Your task to perform on an android device: Open eBay Image 0: 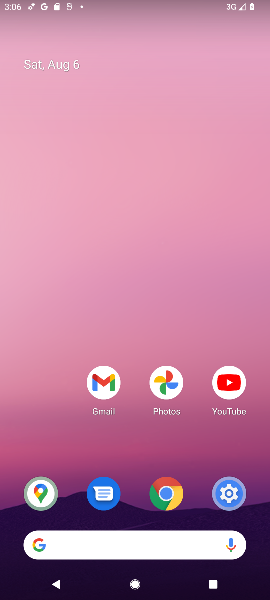
Step 0: drag from (112, 167) to (112, 107)
Your task to perform on an android device: Open eBay Image 1: 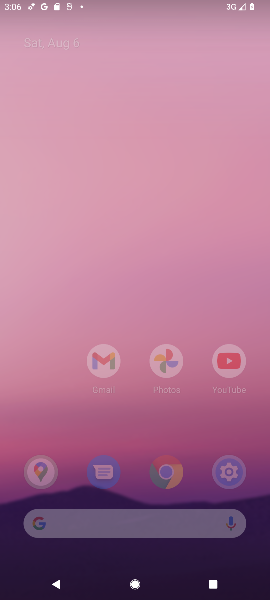
Step 1: click (106, 89)
Your task to perform on an android device: Open eBay Image 2: 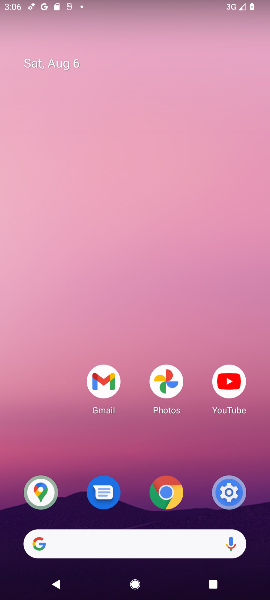
Step 2: drag from (137, 179) to (123, 56)
Your task to perform on an android device: Open eBay Image 3: 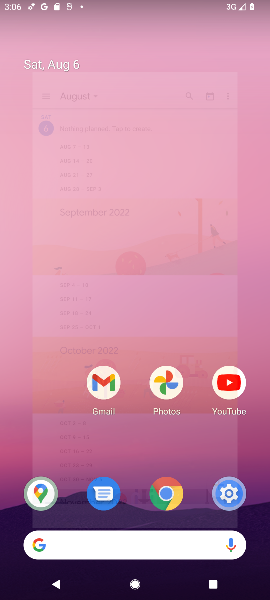
Step 3: drag from (165, 451) to (124, 51)
Your task to perform on an android device: Open eBay Image 4: 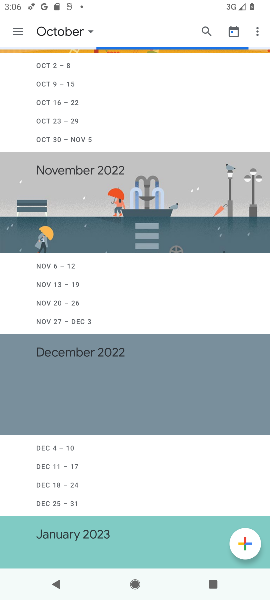
Step 4: drag from (165, 334) to (151, 79)
Your task to perform on an android device: Open eBay Image 5: 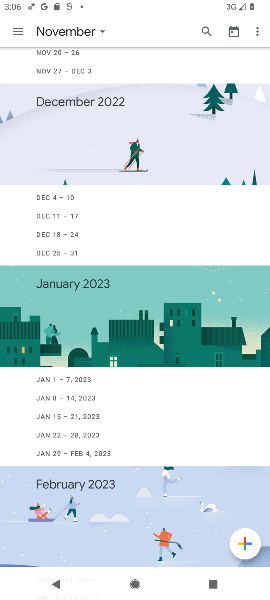
Step 5: click (101, 27)
Your task to perform on an android device: Open eBay Image 6: 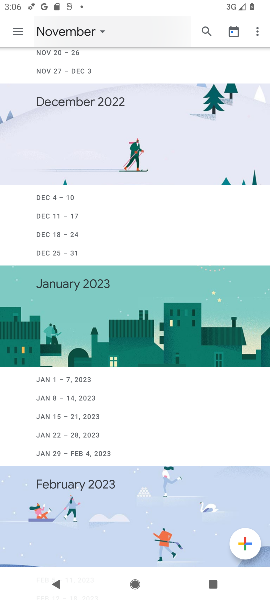
Step 6: click (101, 26)
Your task to perform on an android device: Open eBay Image 7: 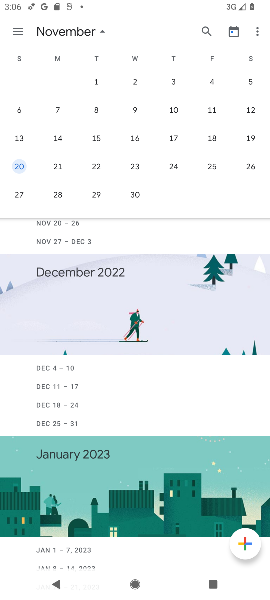
Step 7: press back button
Your task to perform on an android device: Open eBay Image 8: 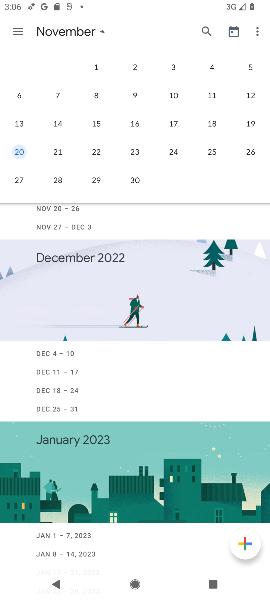
Step 8: press back button
Your task to perform on an android device: Open eBay Image 9: 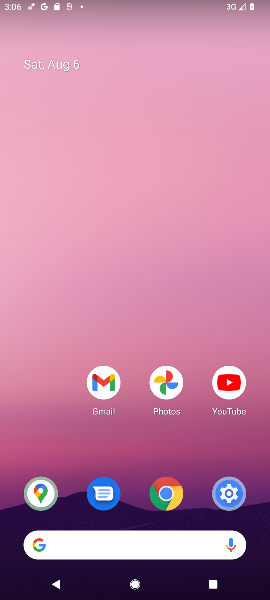
Step 9: drag from (130, 399) to (131, 116)
Your task to perform on an android device: Open eBay Image 10: 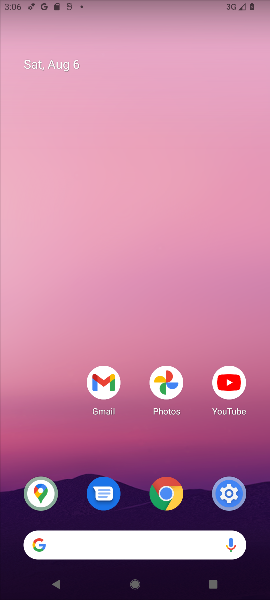
Step 10: drag from (144, 386) to (117, 172)
Your task to perform on an android device: Open eBay Image 11: 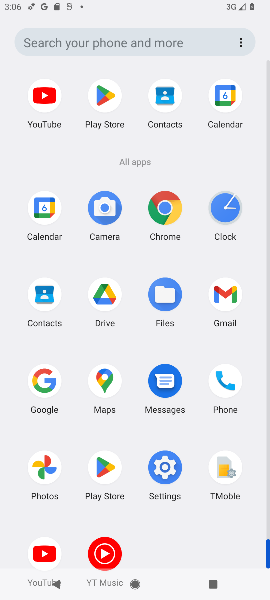
Step 11: drag from (126, 519) to (132, 101)
Your task to perform on an android device: Open eBay Image 12: 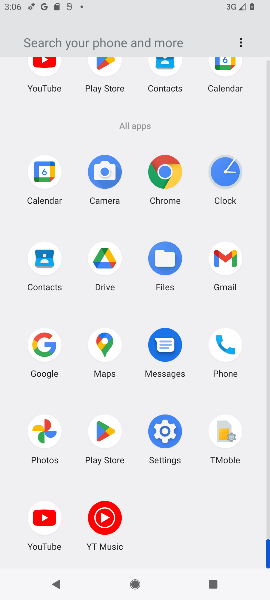
Step 12: click (167, 182)
Your task to perform on an android device: Open eBay Image 13: 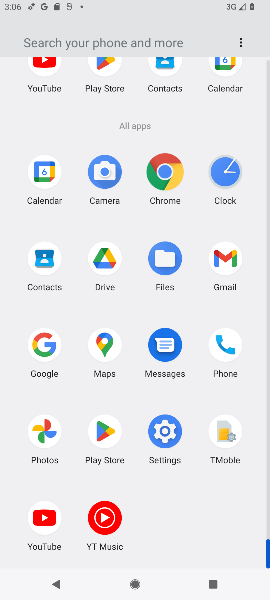
Step 13: click (167, 182)
Your task to perform on an android device: Open eBay Image 14: 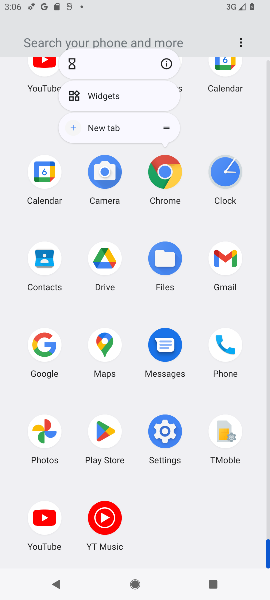
Step 14: click (167, 182)
Your task to perform on an android device: Open eBay Image 15: 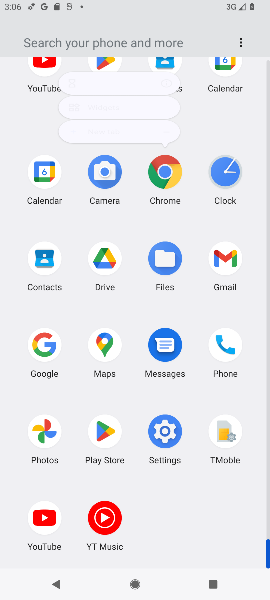
Step 15: click (167, 181)
Your task to perform on an android device: Open eBay Image 16: 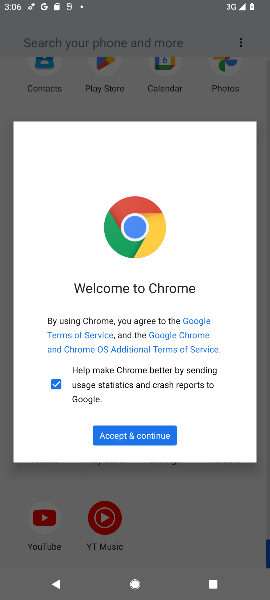
Step 16: click (148, 448)
Your task to perform on an android device: Open eBay Image 17: 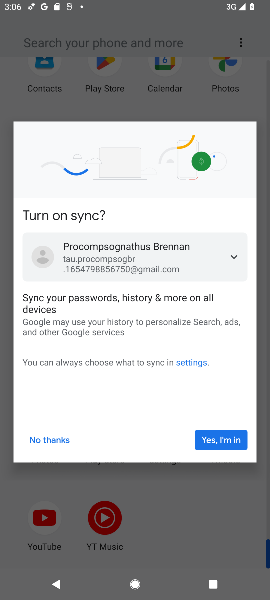
Step 17: click (64, 438)
Your task to perform on an android device: Open eBay Image 18: 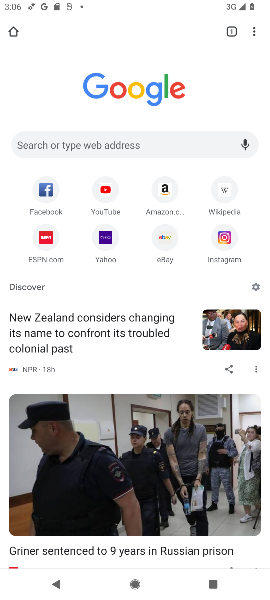
Step 18: click (165, 239)
Your task to perform on an android device: Open eBay Image 19: 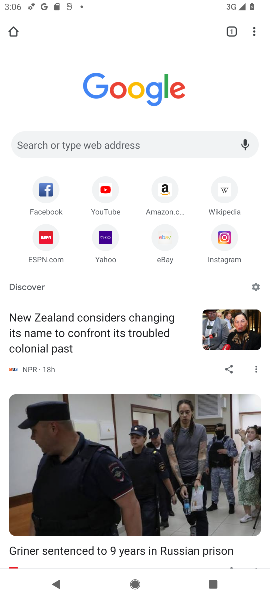
Step 19: click (165, 239)
Your task to perform on an android device: Open eBay Image 20: 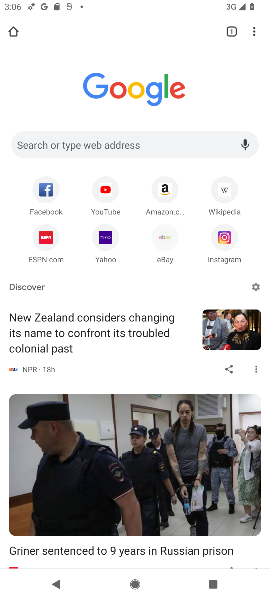
Step 20: click (173, 217)
Your task to perform on an android device: Open eBay Image 21: 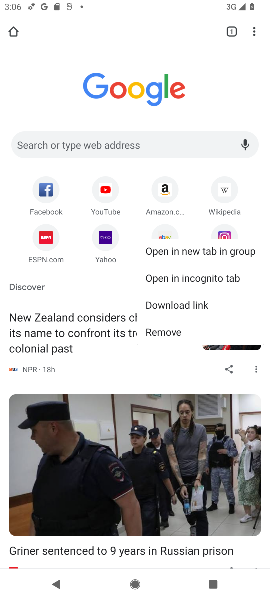
Step 21: click (166, 237)
Your task to perform on an android device: Open eBay Image 22: 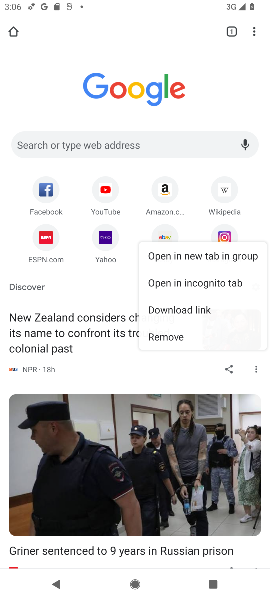
Step 22: click (166, 237)
Your task to perform on an android device: Open eBay Image 23: 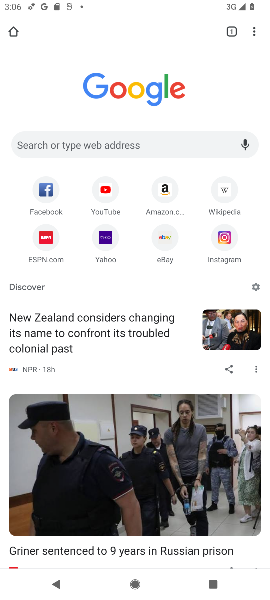
Step 23: click (168, 239)
Your task to perform on an android device: Open eBay Image 24: 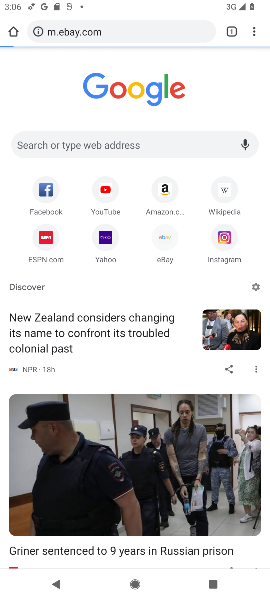
Step 24: click (168, 240)
Your task to perform on an android device: Open eBay Image 25: 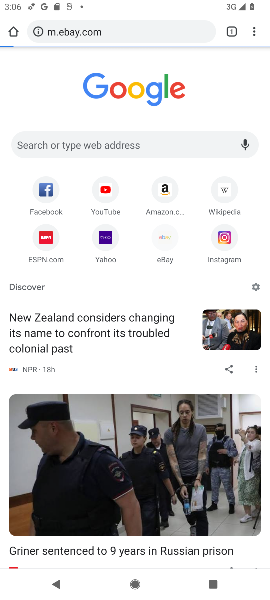
Step 25: click (163, 234)
Your task to perform on an android device: Open eBay Image 26: 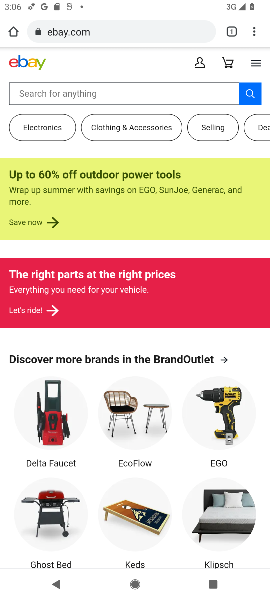
Step 26: task complete